Your task to perform on an android device: turn off wifi Image 0: 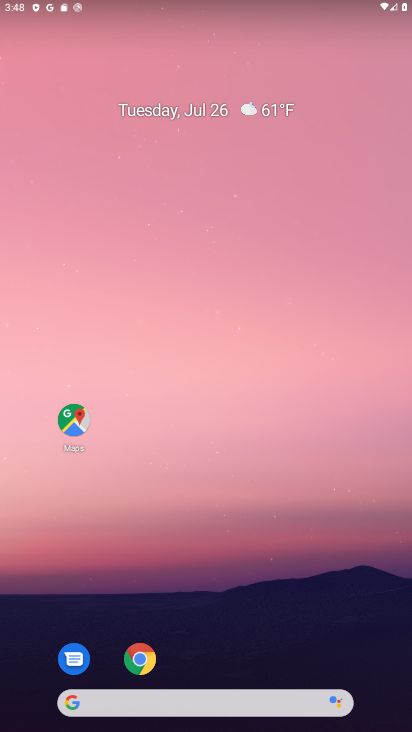
Step 0: drag from (221, 617) to (186, 39)
Your task to perform on an android device: turn off wifi Image 1: 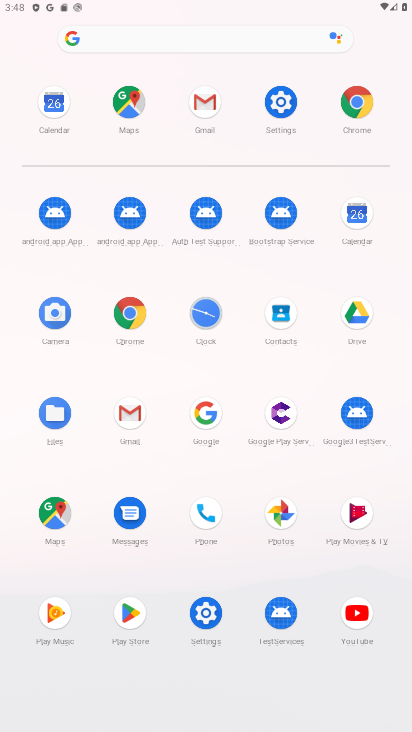
Step 1: click (285, 99)
Your task to perform on an android device: turn off wifi Image 2: 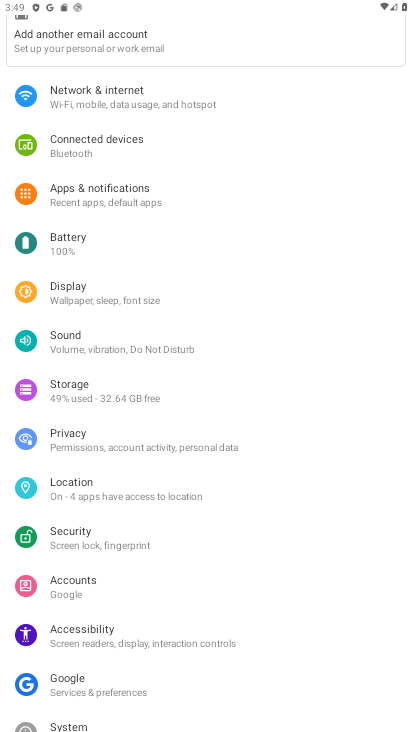
Step 2: click (165, 93)
Your task to perform on an android device: turn off wifi Image 3: 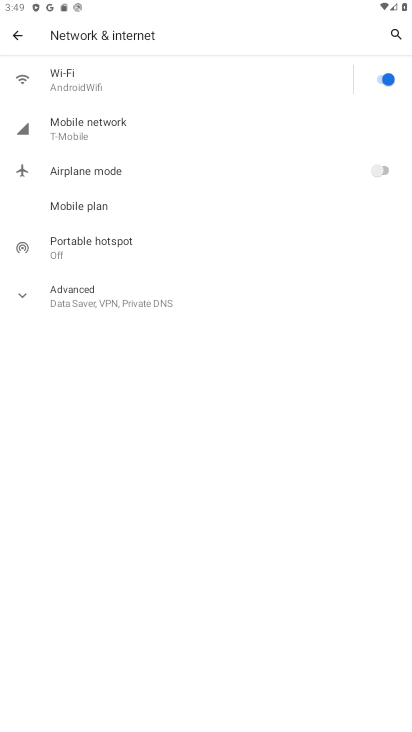
Step 3: click (128, 81)
Your task to perform on an android device: turn off wifi Image 4: 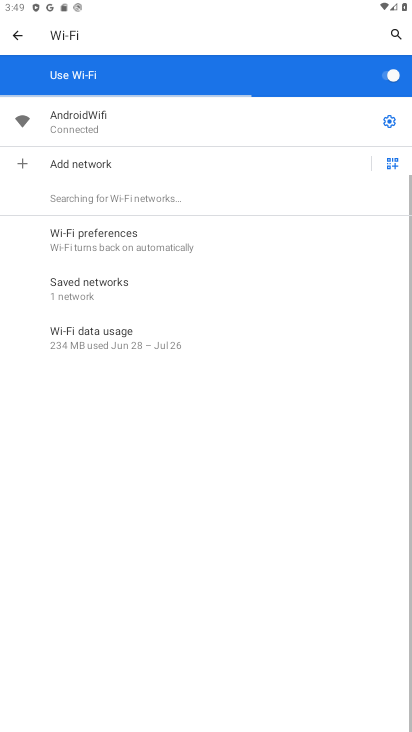
Step 4: click (380, 78)
Your task to perform on an android device: turn off wifi Image 5: 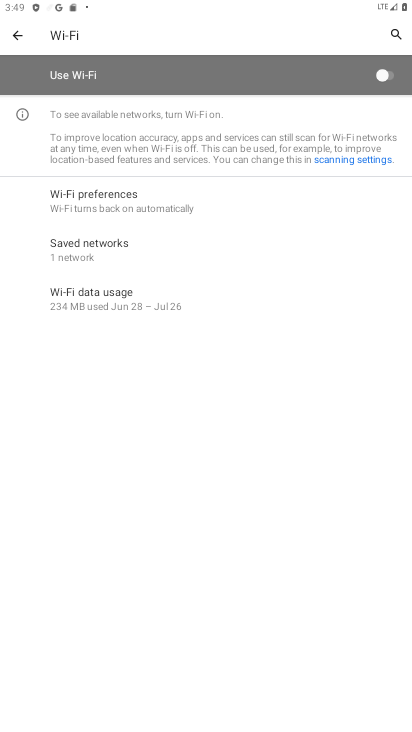
Step 5: task complete